Your task to perform on an android device: turn off priority inbox in the gmail app Image 0: 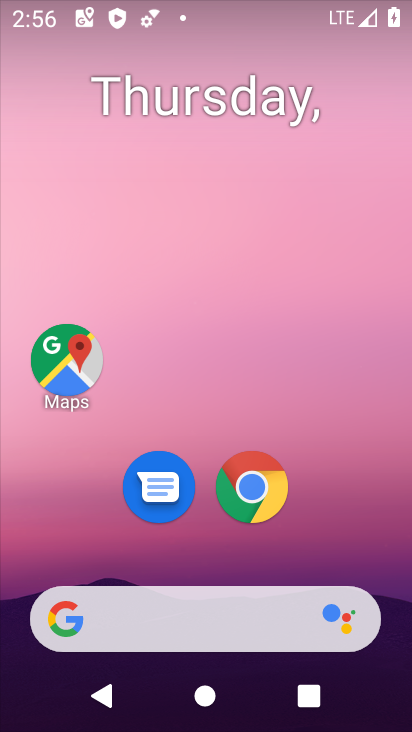
Step 0: drag from (351, 468) to (330, 51)
Your task to perform on an android device: turn off priority inbox in the gmail app Image 1: 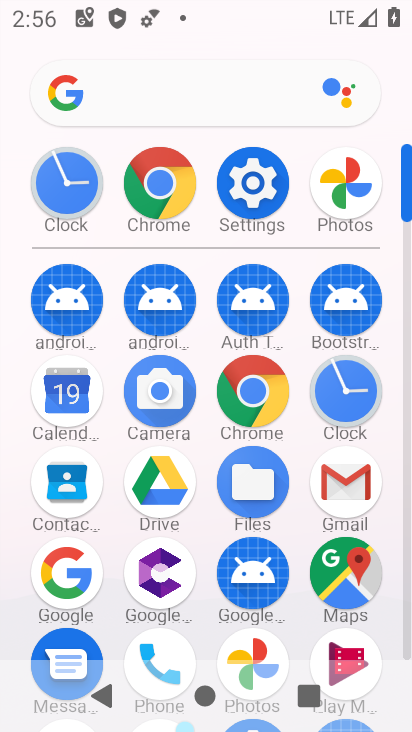
Step 1: click (355, 468)
Your task to perform on an android device: turn off priority inbox in the gmail app Image 2: 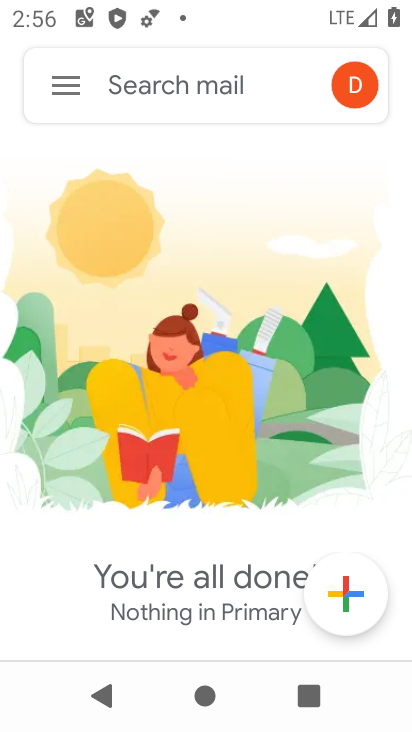
Step 2: click (56, 76)
Your task to perform on an android device: turn off priority inbox in the gmail app Image 3: 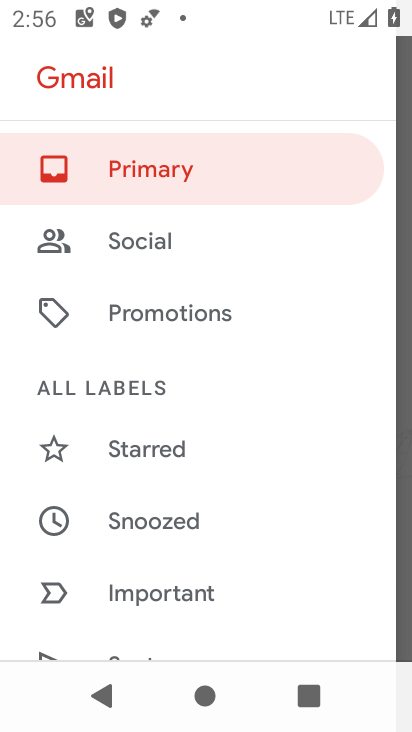
Step 3: drag from (168, 541) to (150, 179)
Your task to perform on an android device: turn off priority inbox in the gmail app Image 4: 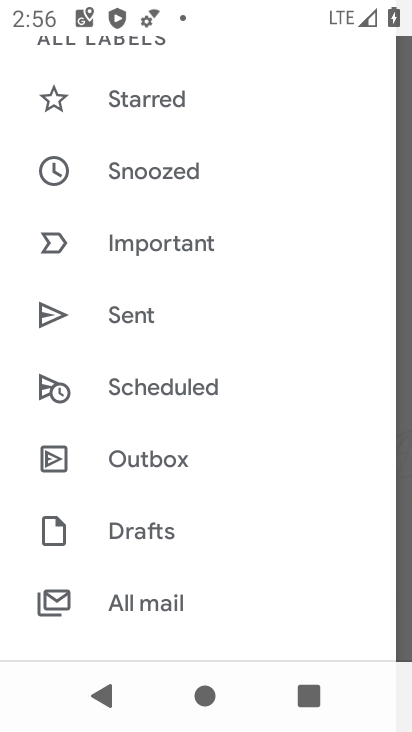
Step 4: drag from (243, 572) to (214, 211)
Your task to perform on an android device: turn off priority inbox in the gmail app Image 5: 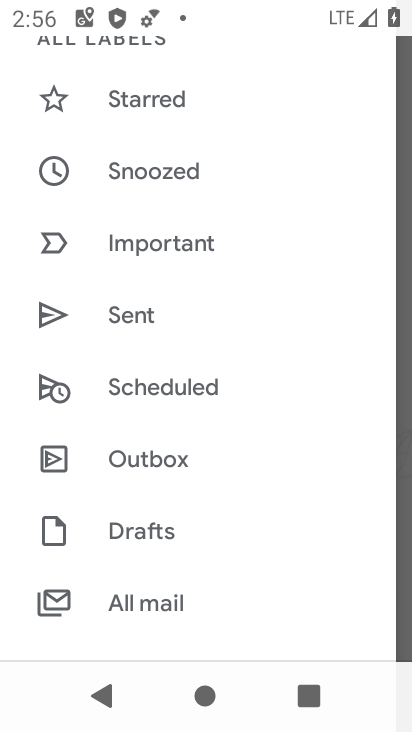
Step 5: drag from (211, 562) to (175, 321)
Your task to perform on an android device: turn off priority inbox in the gmail app Image 6: 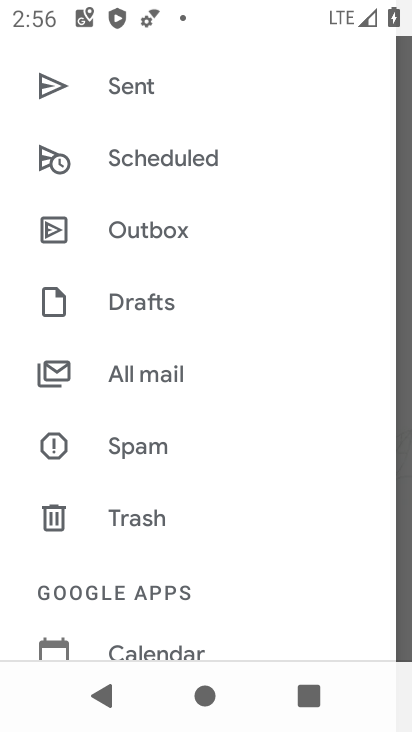
Step 6: drag from (207, 488) to (168, 190)
Your task to perform on an android device: turn off priority inbox in the gmail app Image 7: 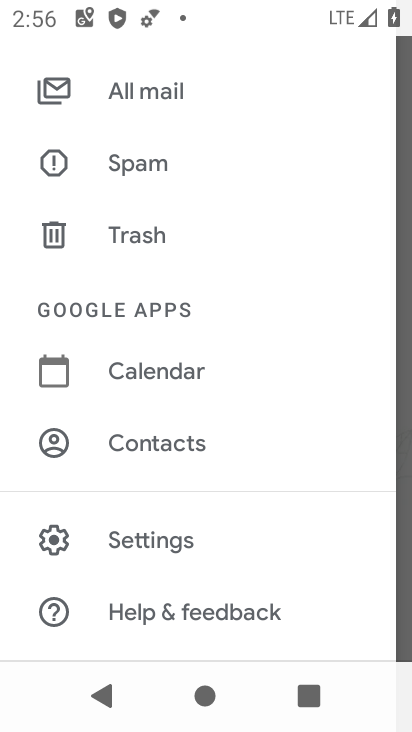
Step 7: click (155, 527)
Your task to perform on an android device: turn off priority inbox in the gmail app Image 8: 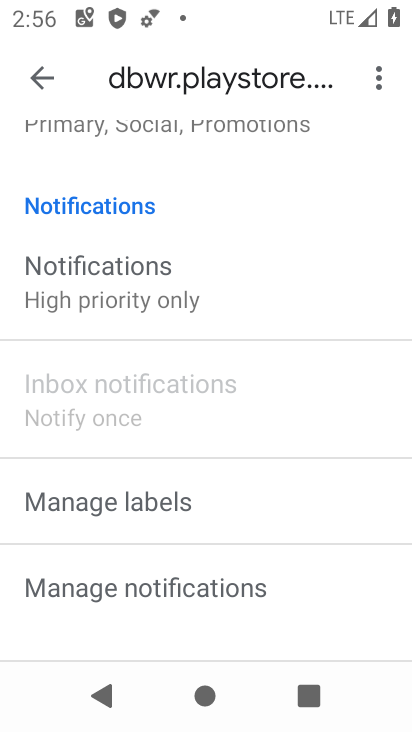
Step 8: click (95, 325)
Your task to perform on an android device: turn off priority inbox in the gmail app Image 9: 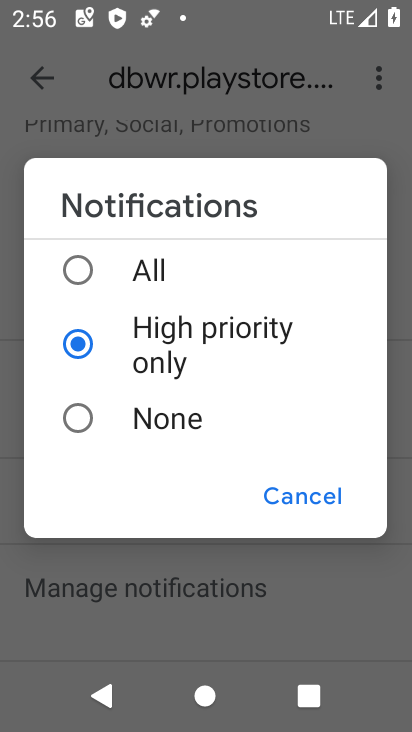
Step 9: click (301, 501)
Your task to perform on an android device: turn off priority inbox in the gmail app Image 10: 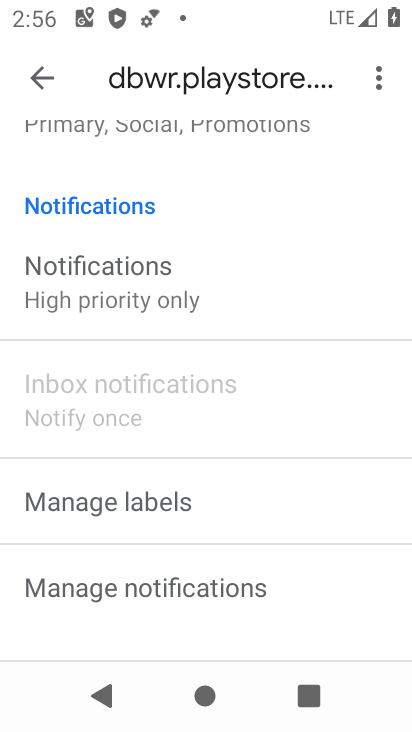
Step 10: drag from (220, 222) to (264, 530)
Your task to perform on an android device: turn off priority inbox in the gmail app Image 11: 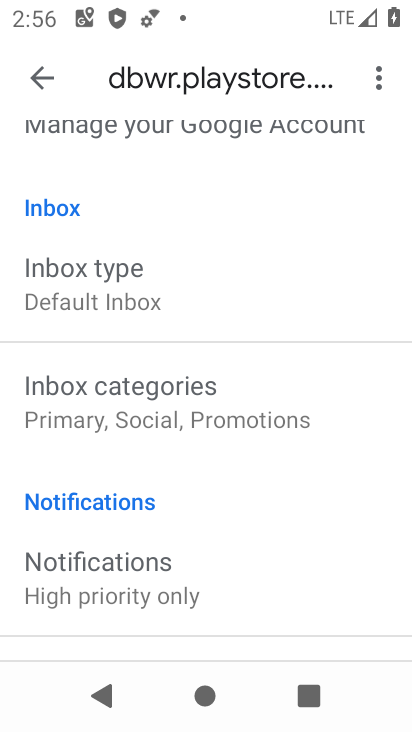
Step 11: click (120, 277)
Your task to perform on an android device: turn off priority inbox in the gmail app Image 12: 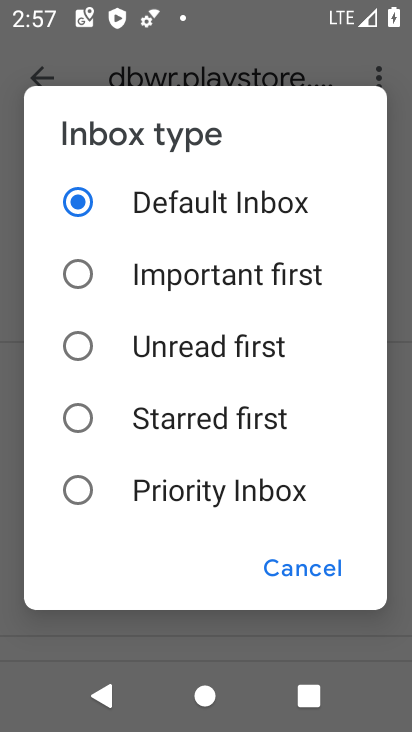
Step 12: task complete